Your task to perform on an android device: Open Google Chrome Image 0: 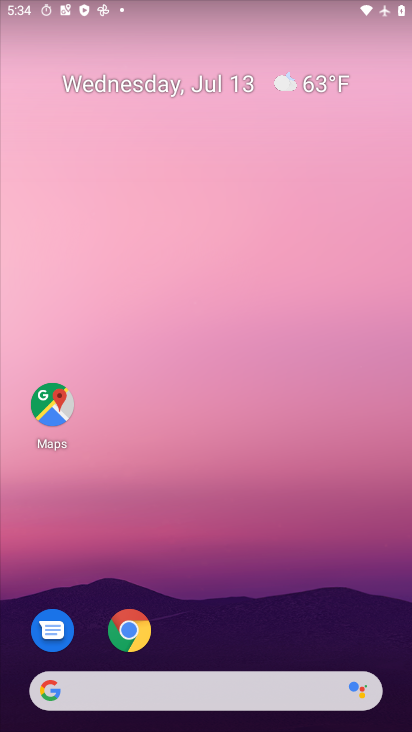
Step 0: press home button
Your task to perform on an android device: Open Google Chrome Image 1: 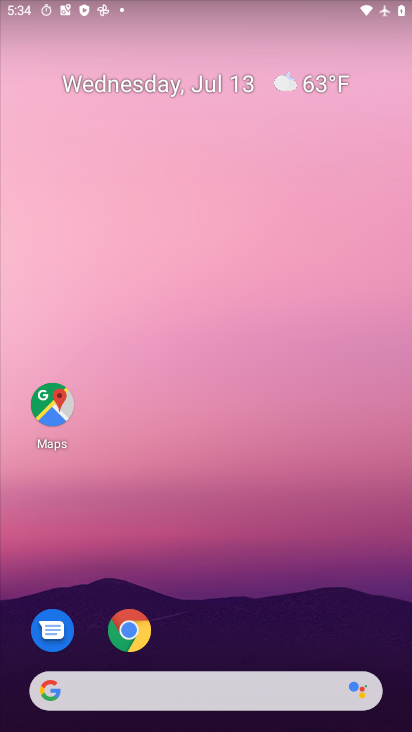
Step 1: drag from (251, 585) to (189, 0)
Your task to perform on an android device: Open Google Chrome Image 2: 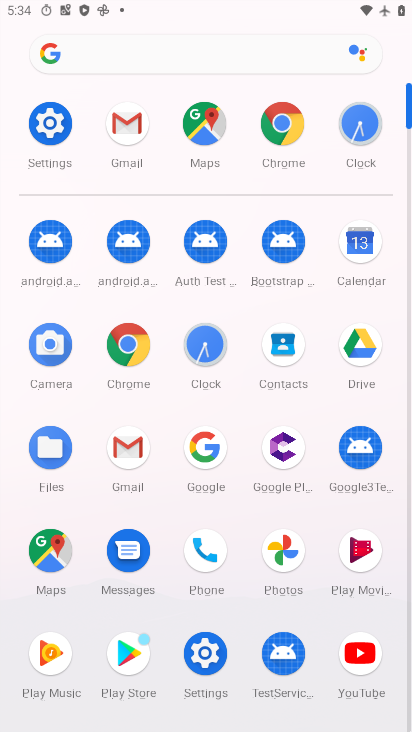
Step 2: click (280, 125)
Your task to perform on an android device: Open Google Chrome Image 3: 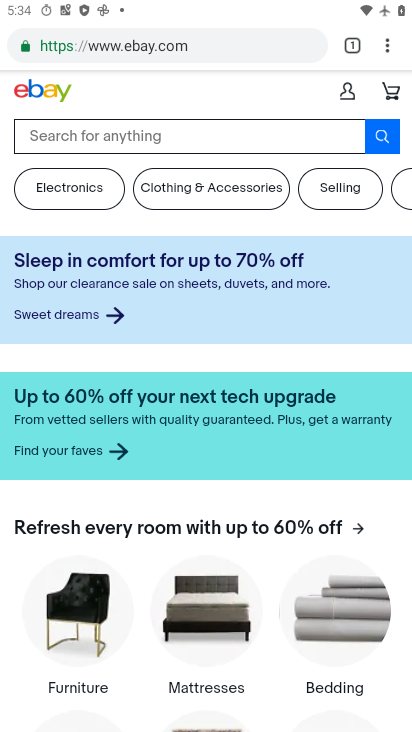
Step 3: task complete